Your task to perform on an android device: open chrome and create a bookmark for the current page Image 0: 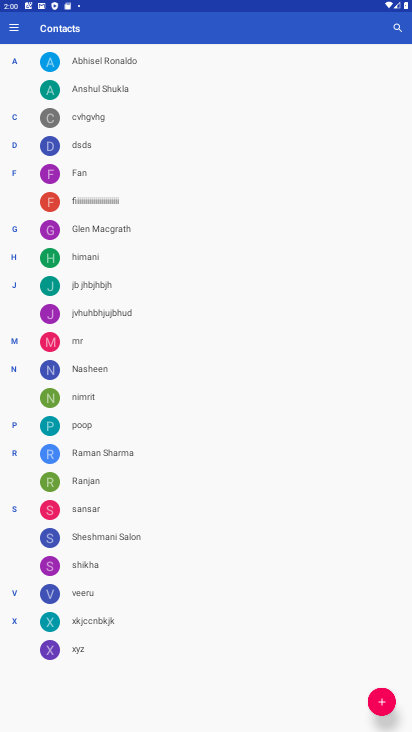
Step 0: press home button
Your task to perform on an android device: open chrome and create a bookmark for the current page Image 1: 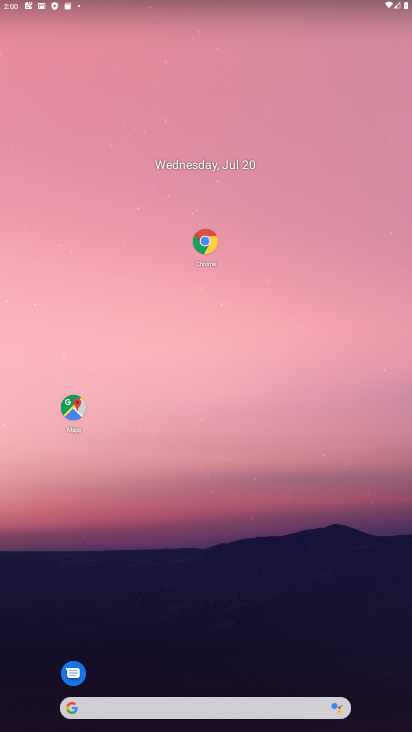
Step 1: click (204, 242)
Your task to perform on an android device: open chrome and create a bookmark for the current page Image 2: 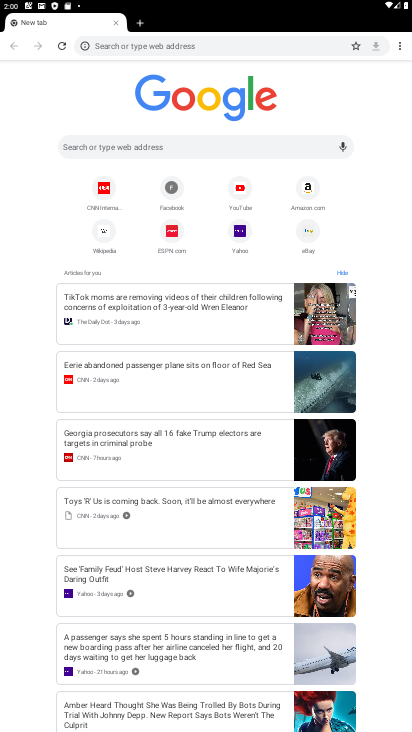
Step 2: click (394, 45)
Your task to perform on an android device: open chrome and create a bookmark for the current page Image 3: 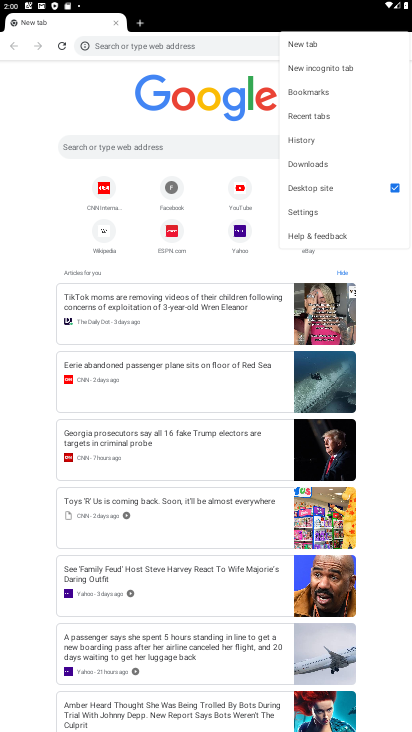
Step 3: click (301, 210)
Your task to perform on an android device: open chrome and create a bookmark for the current page Image 4: 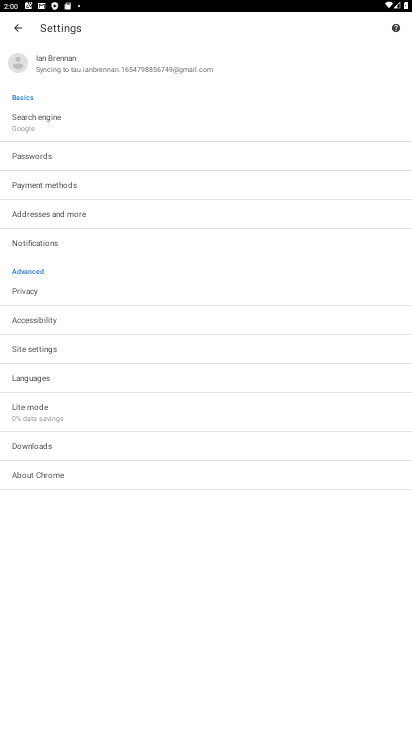
Step 4: task complete